Your task to perform on an android device: Go to CNN.com Image 0: 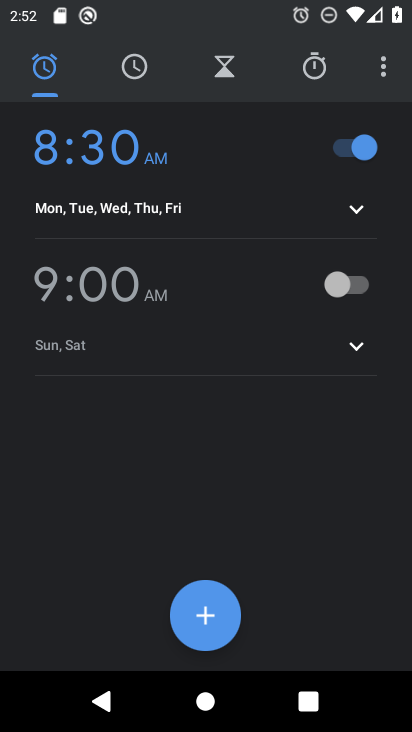
Step 0: press home button
Your task to perform on an android device: Go to CNN.com Image 1: 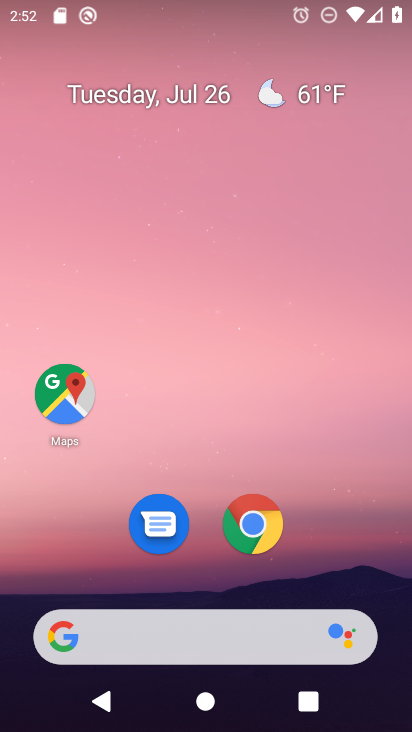
Step 1: click (242, 531)
Your task to perform on an android device: Go to CNN.com Image 2: 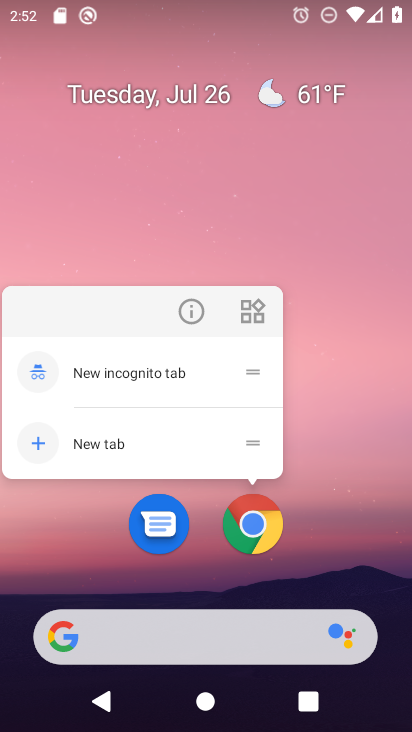
Step 2: click (256, 521)
Your task to perform on an android device: Go to CNN.com Image 3: 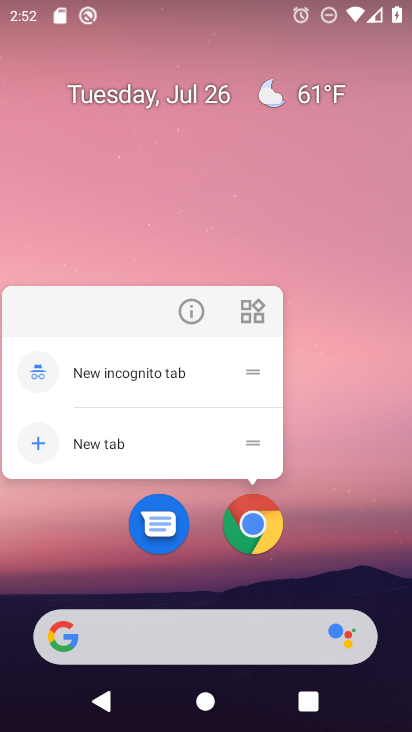
Step 3: click (251, 530)
Your task to perform on an android device: Go to CNN.com Image 4: 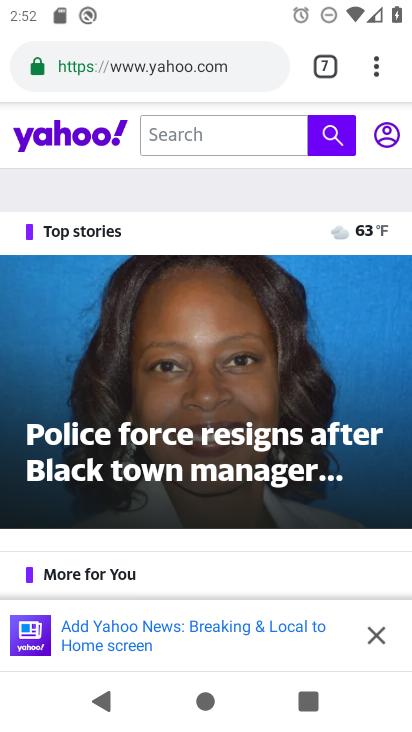
Step 4: drag from (372, 68) to (210, 135)
Your task to perform on an android device: Go to CNN.com Image 5: 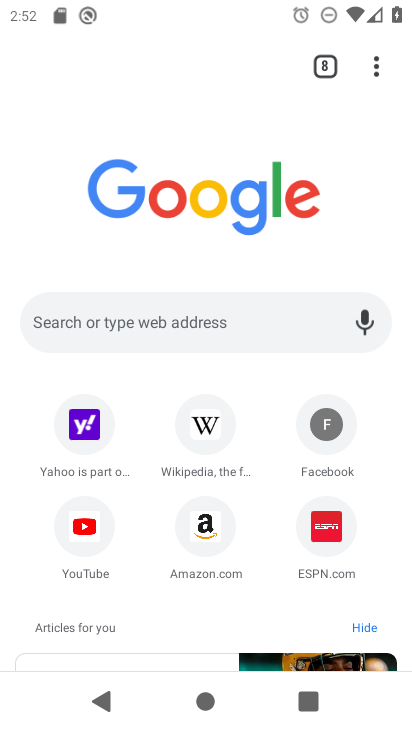
Step 5: click (141, 322)
Your task to perform on an android device: Go to CNN.com Image 6: 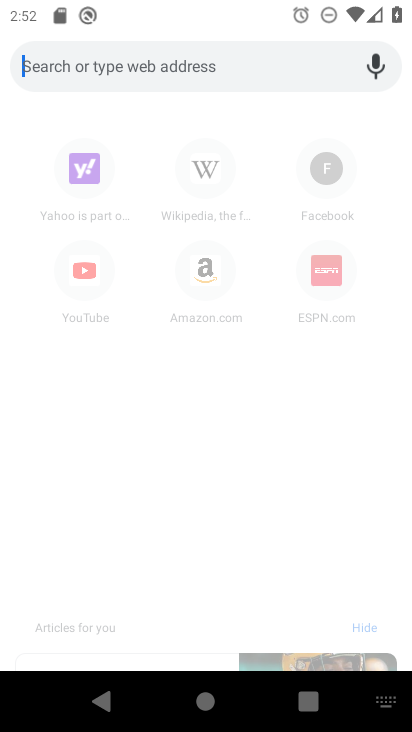
Step 6: type "cnn.com"
Your task to perform on an android device: Go to CNN.com Image 7: 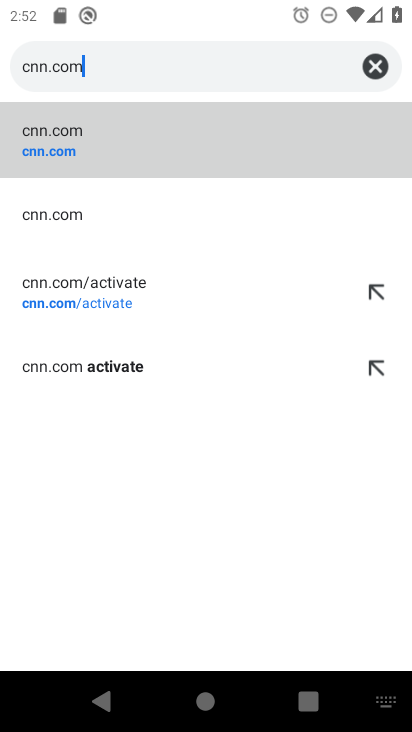
Step 7: click (98, 137)
Your task to perform on an android device: Go to CNN.com Image 8: 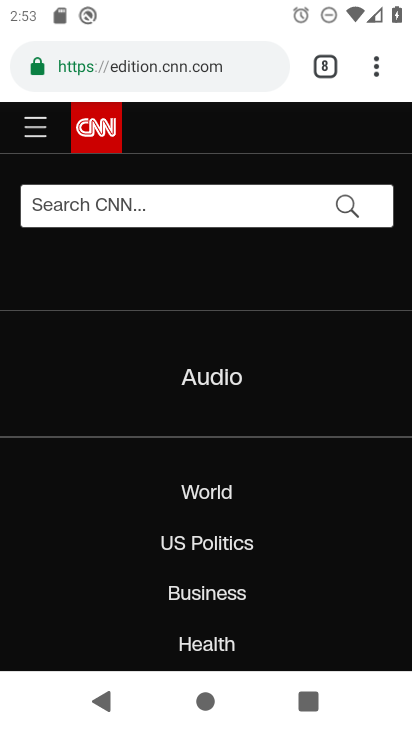
Step 8: task complete